Your task to perform on an android device: delete a single message in the gmail app Image 0: 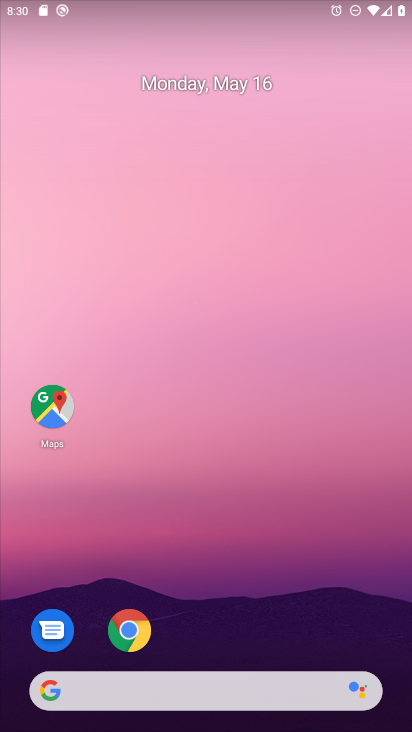
Step 0: drag from (212, 600) to (179, 153)
Your task to perform on an android device: delete a single message in the gmail app Image 1: 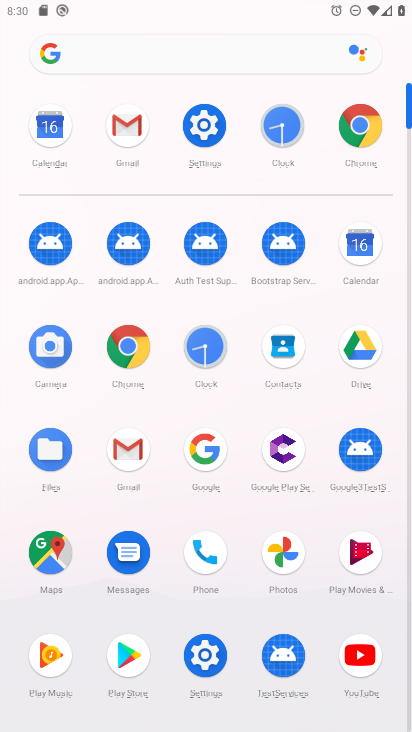
Step 1: click (123, 132)
Your task to perform on an android device: delete a single message in the gmail app Image 2: 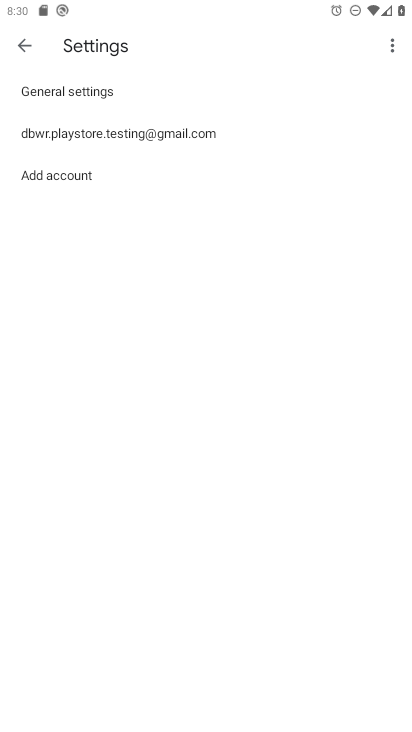
Step 2: click (23, 46)
Your task to perform on an android device: delete a single message in the gmail app Image 3: 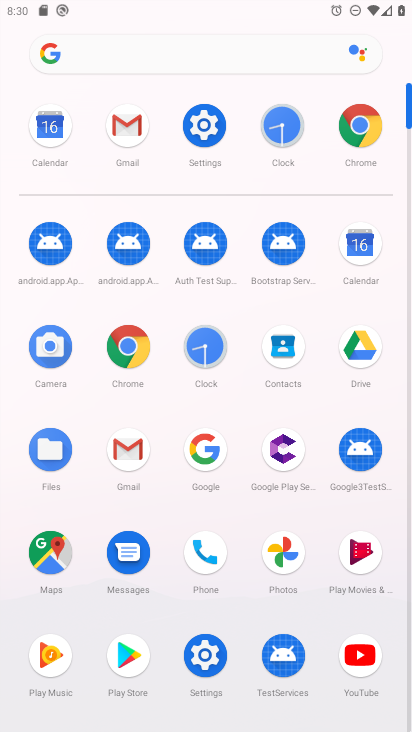
Step 3: click (109, 111)
Your task to perform on an android device: delete a single message in the gmail app Image 4: 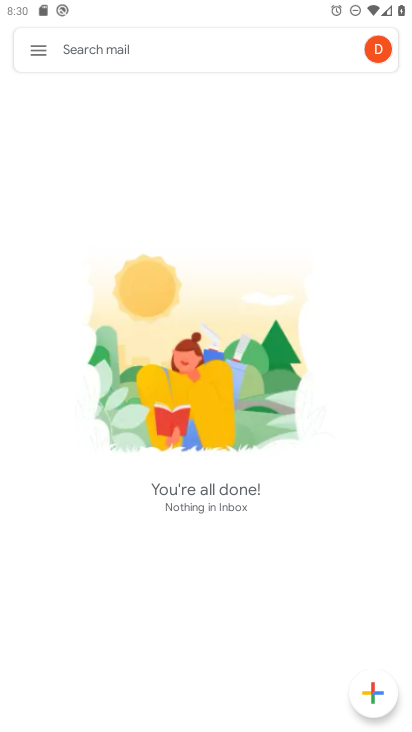
Step 4: click (25, 42)
Your task to perform on an android device: delete a single message in the gmail app Image 5: 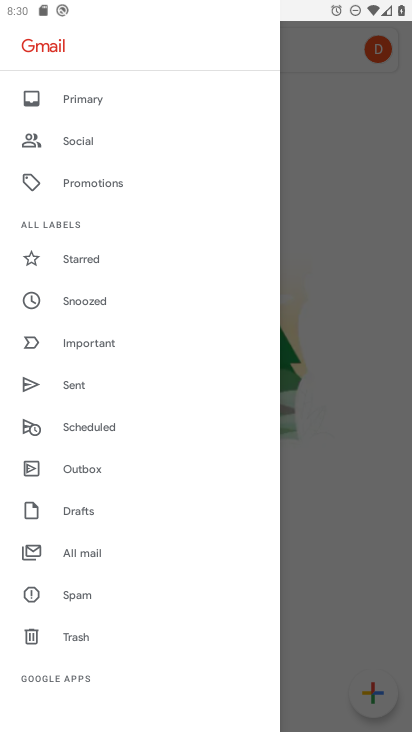
Step 5: click (91, 102)
Your task to perform on an android device: delete a single message in the gmail app Image 6: 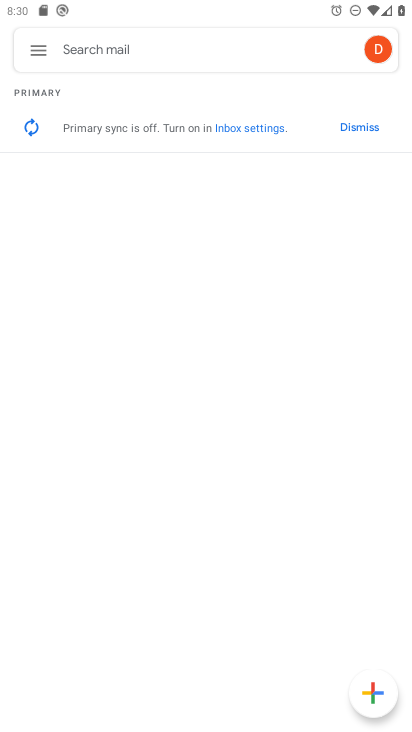
Step 6: click (37, 43)
Your task to perform on an android device: delete a single message in the gmail app Image 7: 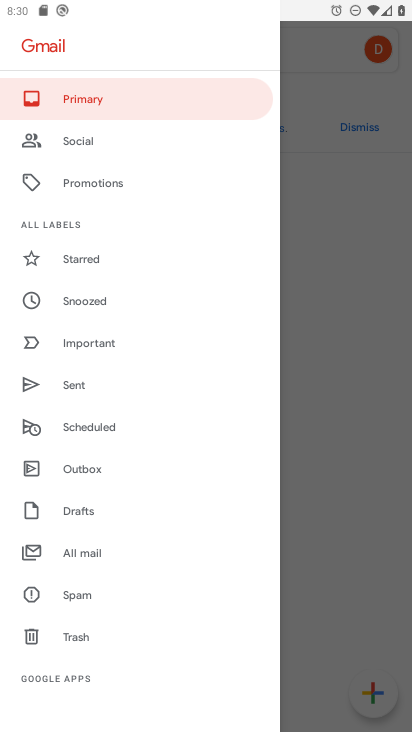
Step 7: click (107, 541)
Your task to perform on an android device: delete a single message in the gmail app Image 8: 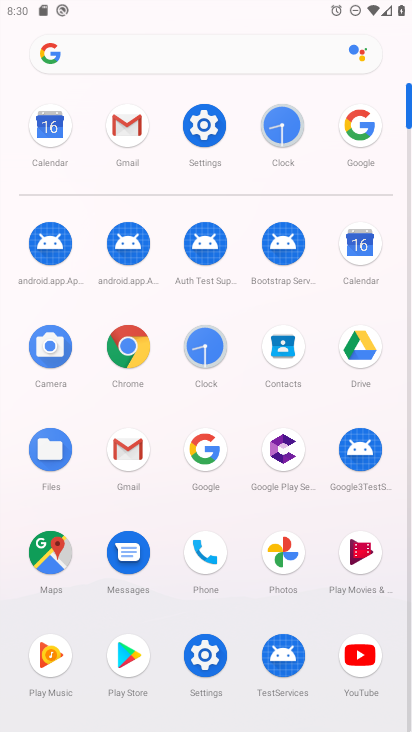
Step 8: click (117, 127)
Your task to perform on an android device: delete a single message in the gmail app Image 9: 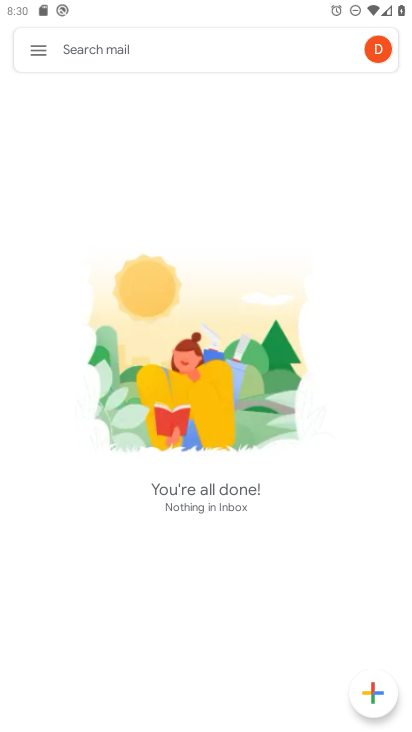
Step 9: task complete